Your task to perform on an android device: Open calendar and show me the second week of next month Image 0: 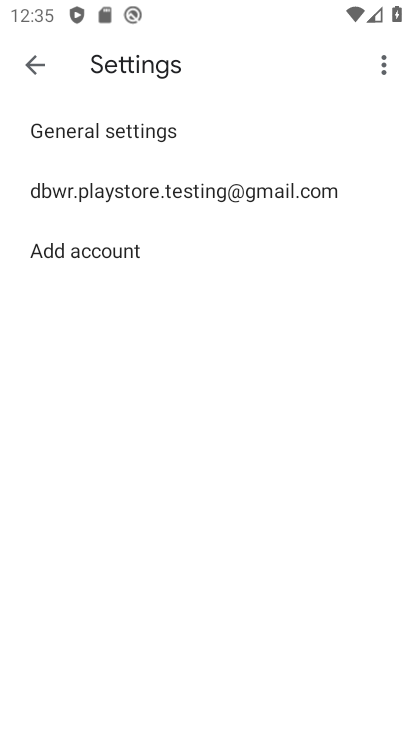
Step 0: press home button
Your task to perform on an android device: Open calendar and show me the second week of next month Image 1: 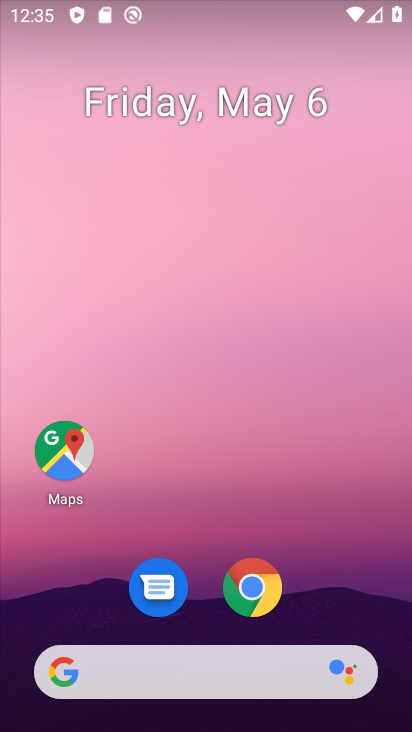
Step 1: drag from (23, 603) to (210, 191)
Your task to perform on an android device: Open calendar and show me the second week of next month Image 2: 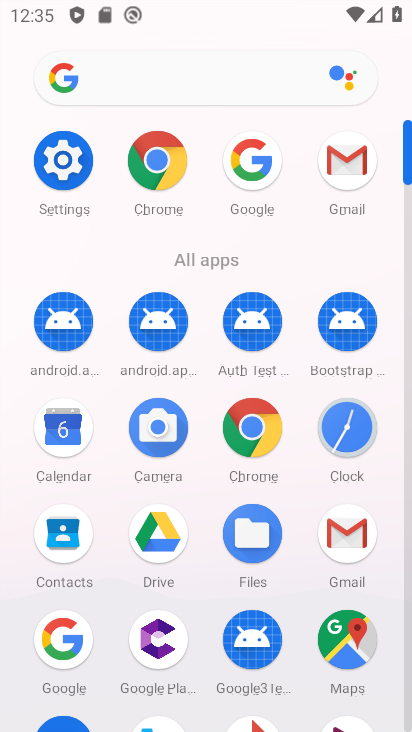
Step 2: click (74, 446)
Your task to perform on an android device: Open calendar and show me the second week of next month Image 3: 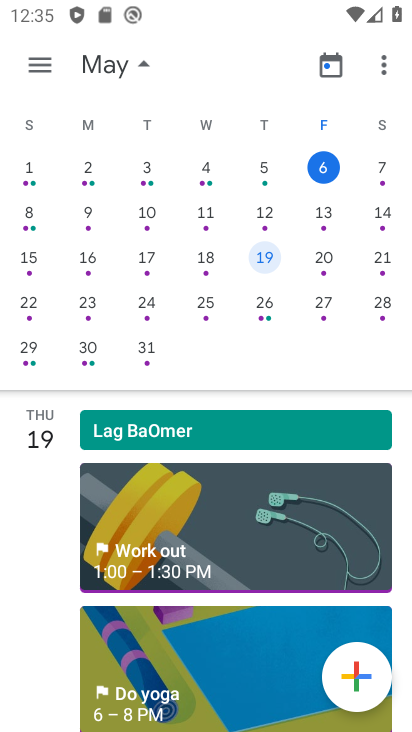
Step 3: drag from (358, 252) to (26, 211)
Your task to perform on an android device: Open calendar and show me the second week of next month Image 4: 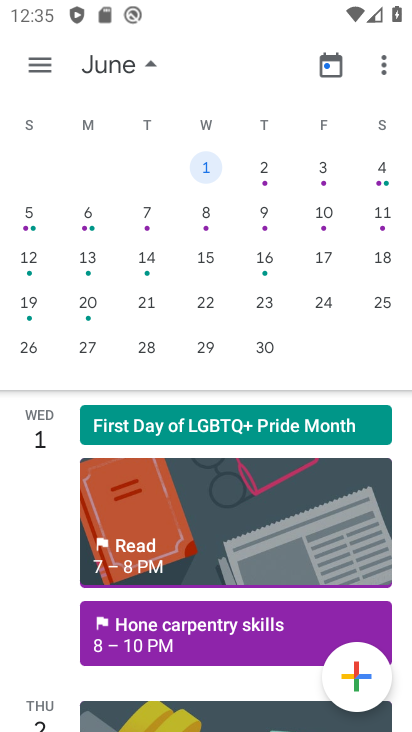
Step 4: click (26, 215)
Your task to perform on an android device: Open calendar and show me the second week of next month Image 5: 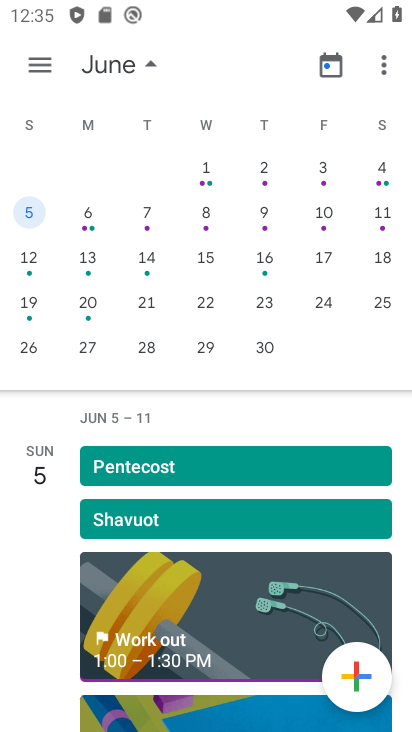
Step 5: click (90, 216)
Your task to perform on an android device: Open calendar and show me the second week of next month Image 6: 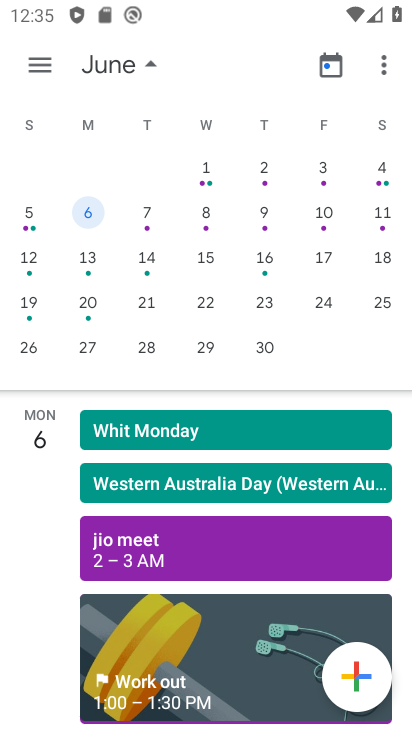
Step 6: click (138, 208)
Your task to perform on an android device: Open calendar and show me the second week of next month Image 7: 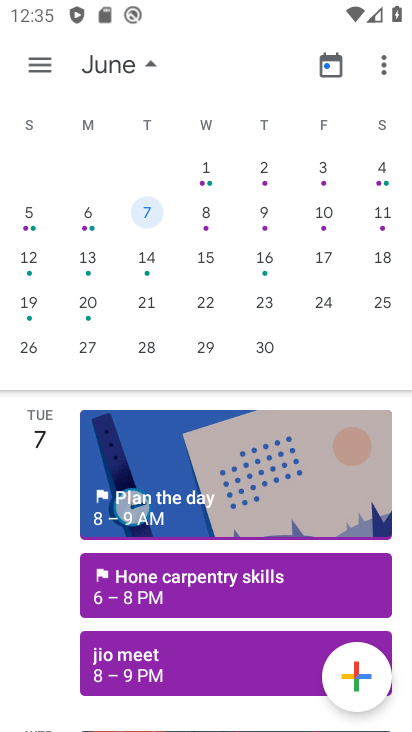
Step 7: click (206, 218)
Your task to perform on an android device: Open calendar and show me the second week of next month Image 8: 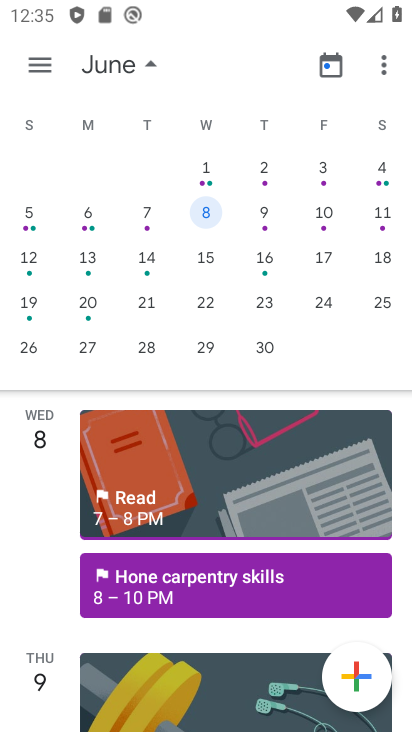
Step 8: click (271, 216)
Your task to perform on an android device: Open calendar and show me the second week of next month Image 9: 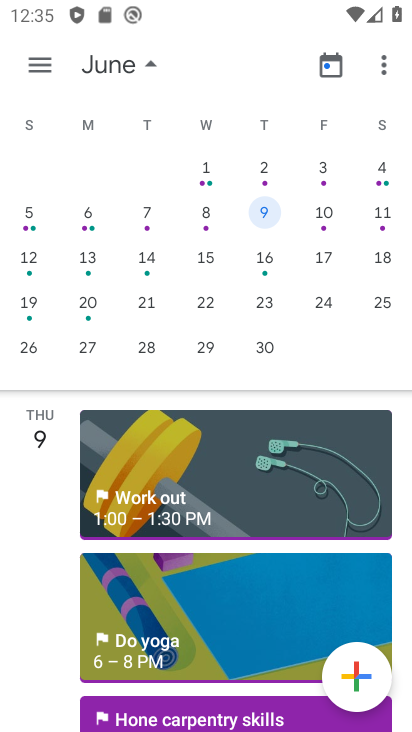
Step 9: click (327, 217)
Your task to perform on an android device: Open calendar and show me the second week of next month Image 10: 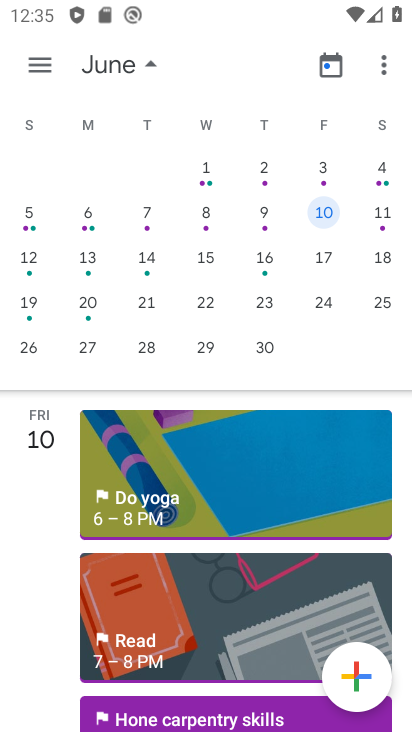
Step 10: task complete